Your task to perform on an android device: Open CNN.com Image 0: 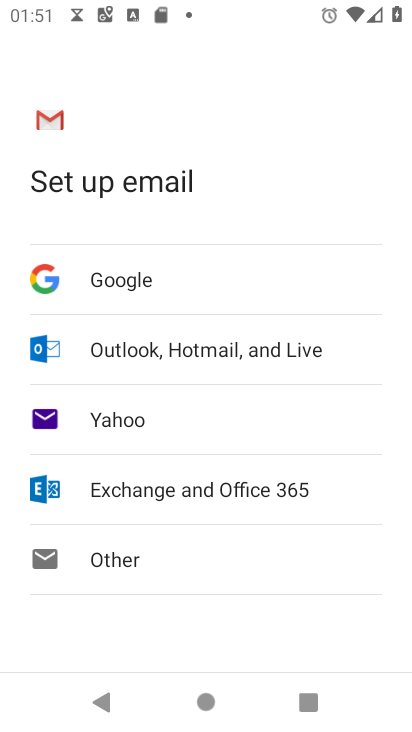
Step 0: press home button
Your task to perform on an android device: Open CNN.com Image 1: 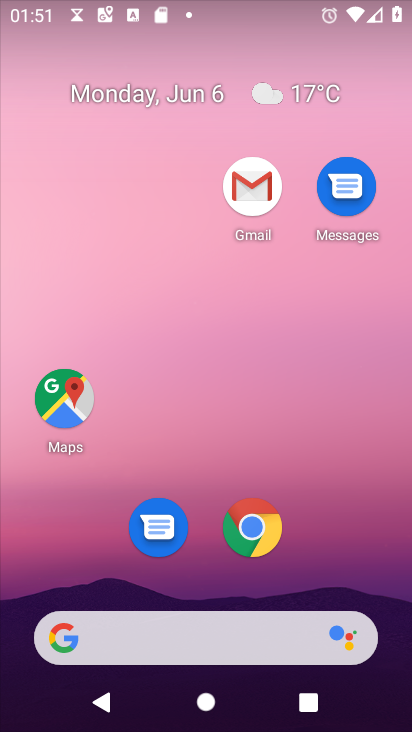
Step 1: drag from (294, 589) to (241, 104)
Your task to perform on an android device: Open CNN.com Image 2: 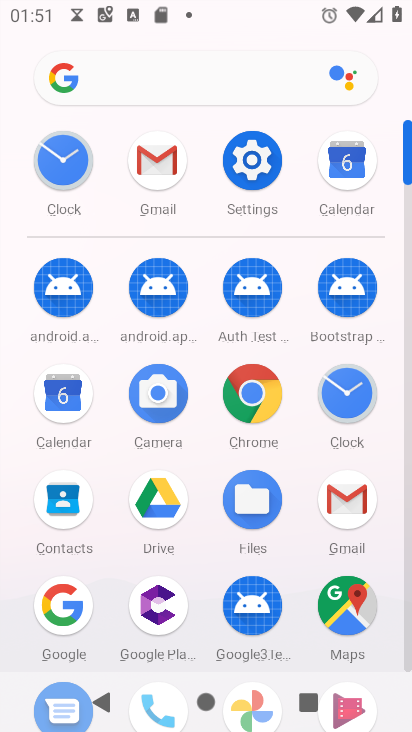
Step 2: click (243, 380)
Your task to perform on an android device: Open CNN.com Image 3: 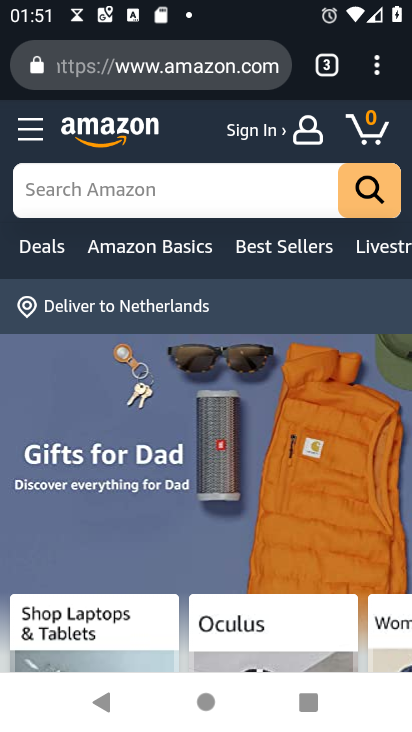
Step 3: click (138, 62)
Your task to perform on an android device: Open CNN.com Image 4: 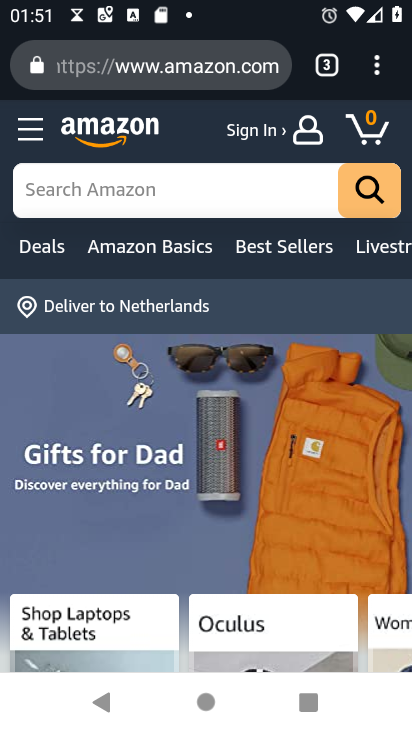
Step 4: click (138, 62)
Your task to perform on an android device: Open CNN.com Image 5: 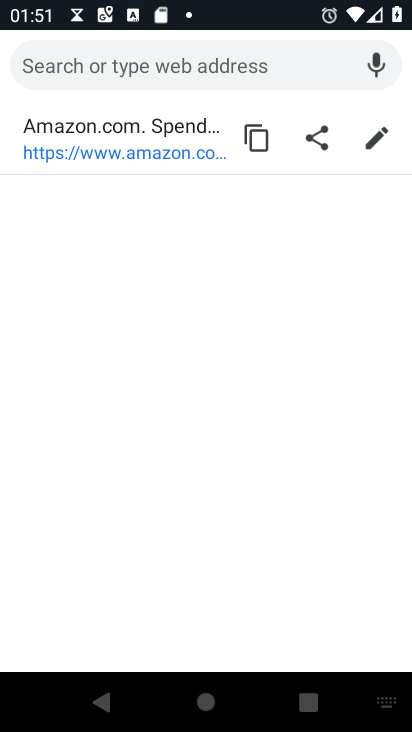
Step 5: click (138, 62)
Your task to perform on an android device: Open CNN.com Image 6: 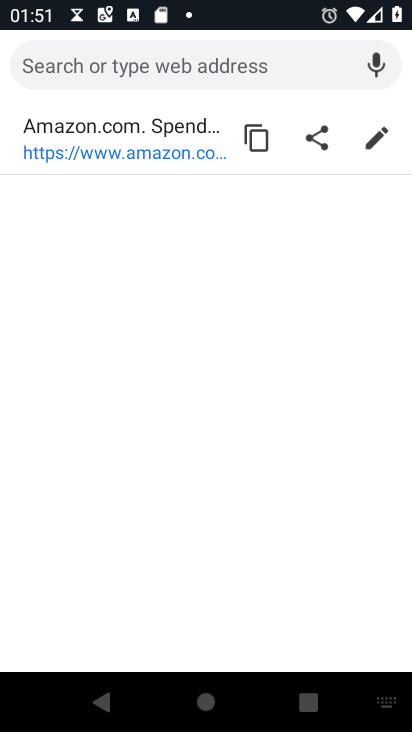
Step 6: type "cnn.com"
Your task to perform on an android device: Open CNN.com Image 7: 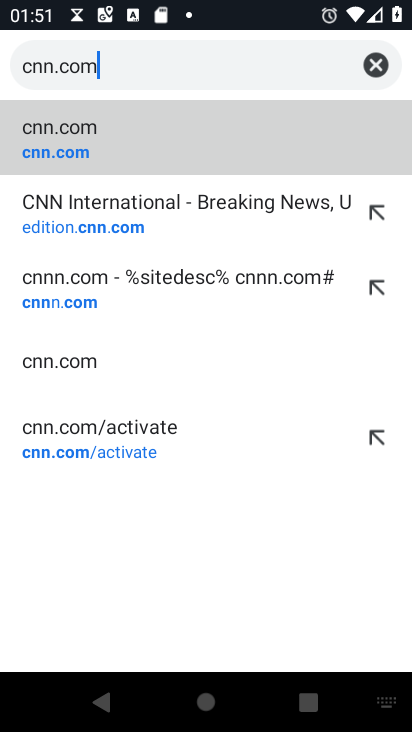
Step 7: click (301, 124)
Your task to perform on an android device: Open CNN.com Image 8: 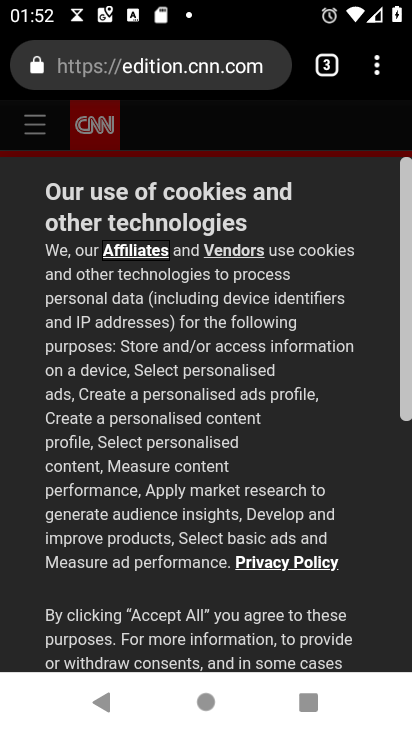
Step 8: task complete